Your task to perform on an android device: check battery use Image 0: 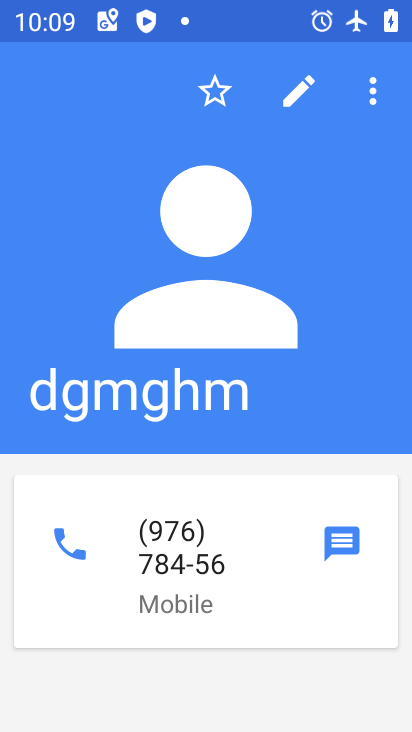
Step 0: press home button
Your task to perform on an android device: check battery use Image 1: 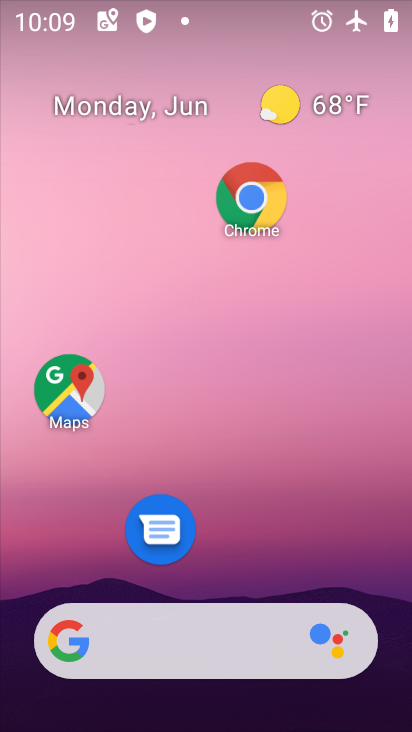
Step 1: drag from (217, 551) to (174, 141)
Your task to perform on an android device: check battery use Image 2: 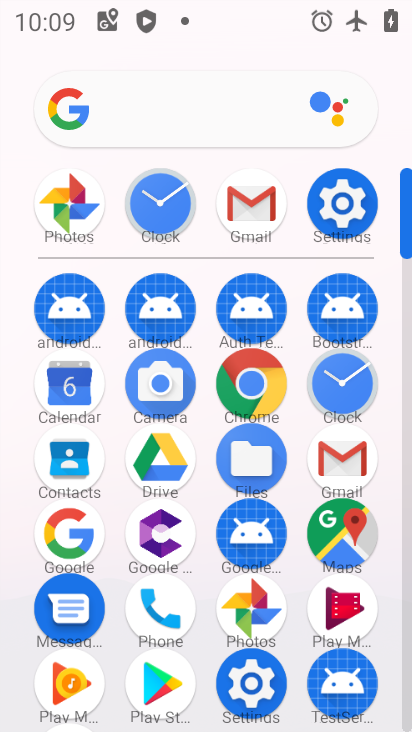
Step 2: click (356, 217)
Your task to perform on an android device: check battery use Image 3: 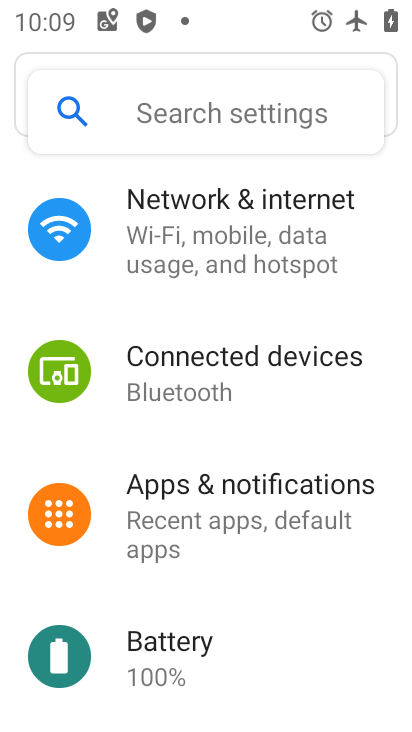
Step 3: click (234, 647)
Your task to perform on an android device: check battery use Image 4: 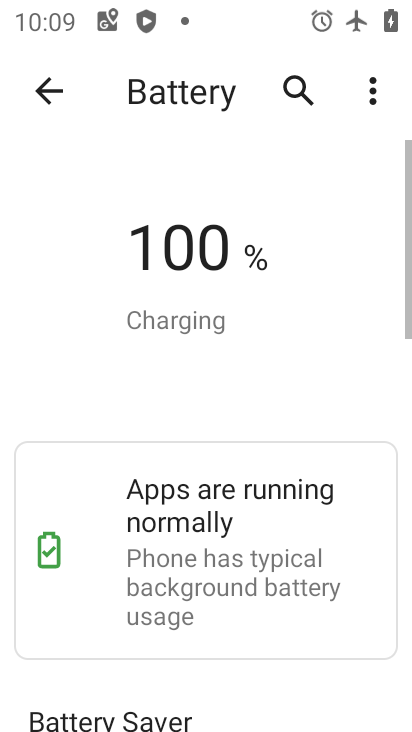
Step 4: click (372, 91)
Your task to perform on an android device: check battery use Image 5: 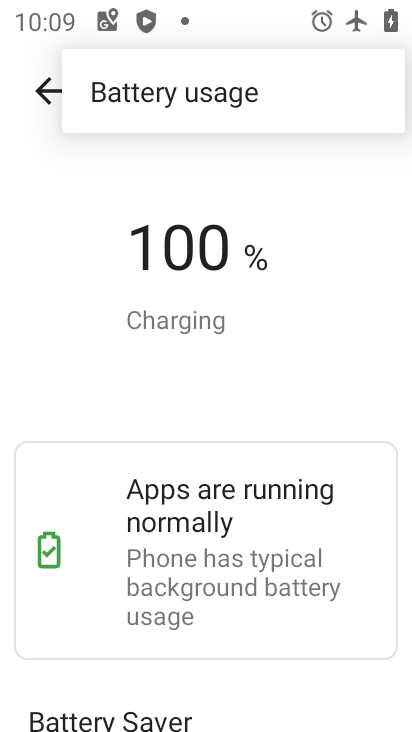
Step 5: click (321, 98)
Your task to perform on an android device: check battery use Image 6: 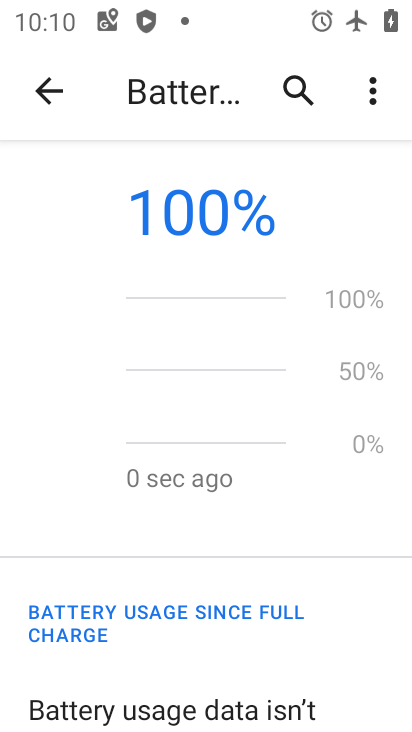
Step 6: click (362, 90)
Your task to perform on an android device: check battery use Image 7: 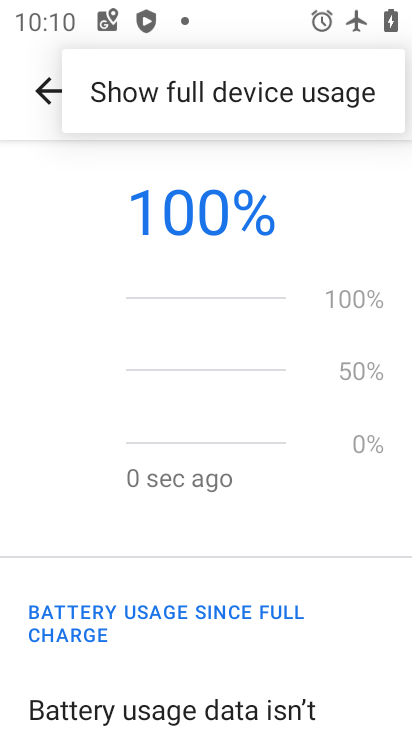
Step 7: click (242, 97)
Your task to perform on an android device: check battery use Image 8: 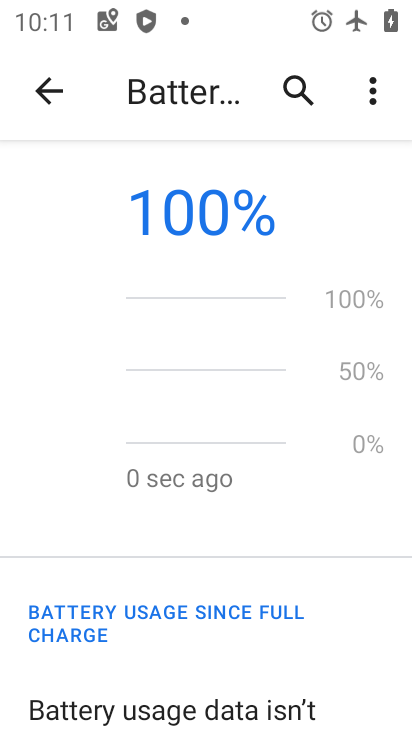
Step 8: click (366, 82)
Your task to perform on an android device: check battery use Image 9: 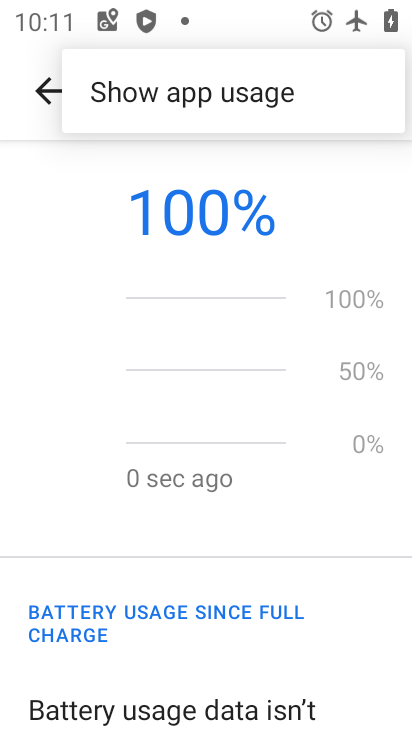
Step 9: click (244, 103)
Your task to perform on an android device: check battery use Image 10: 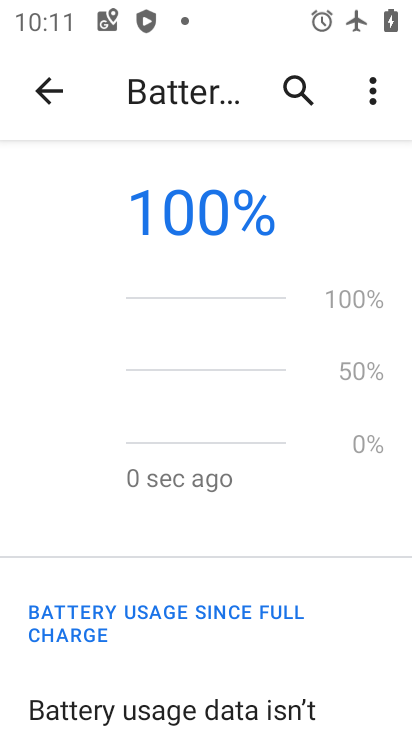
Step 10: task complete